Your task to perform on an android device: When is my next appointment? Image 0: 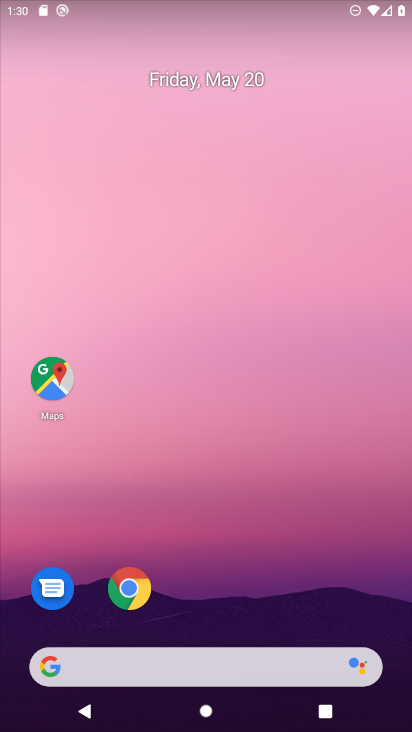
Step 0: drag from (376, 627) to (257, 117)
Your task to perform on an android device: When is my next appointment? Image 1: 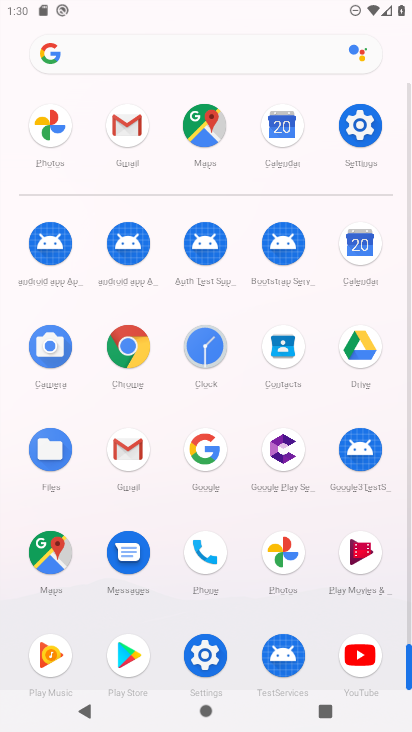
Step 1: click (358, 240)
Your task to perform on an android device: When is my next appointment? Image 2: 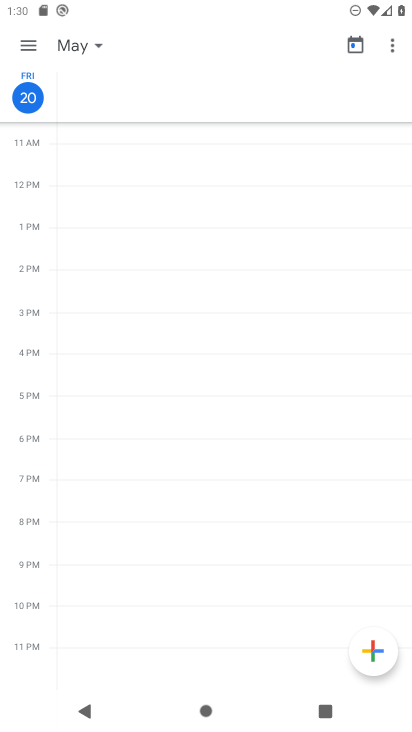
Step 2: drag from (208, 575) to (206, 456)
Your task to perform on an android device: When is my next appointment? Image 3: 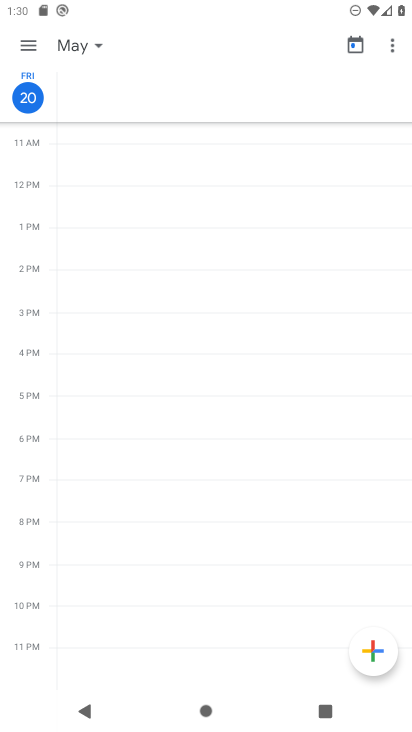
Step 3: click (27, 41)
Your task to perform on an android device: When is my next appointment? Image 4: 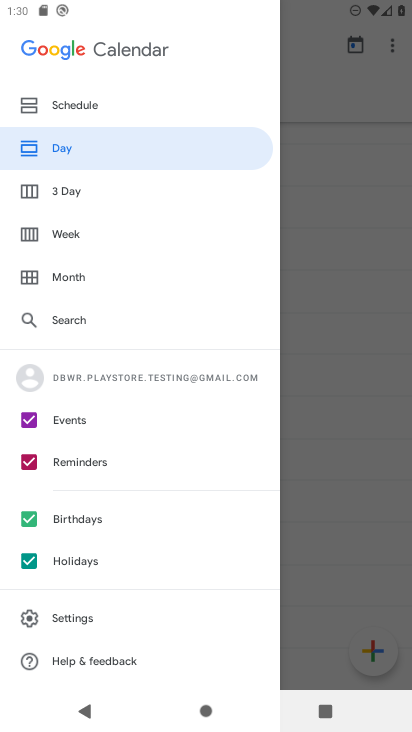
Step 4: click (79, 101)
Your task to perform on an android device: When is my next appointment? Image 5: 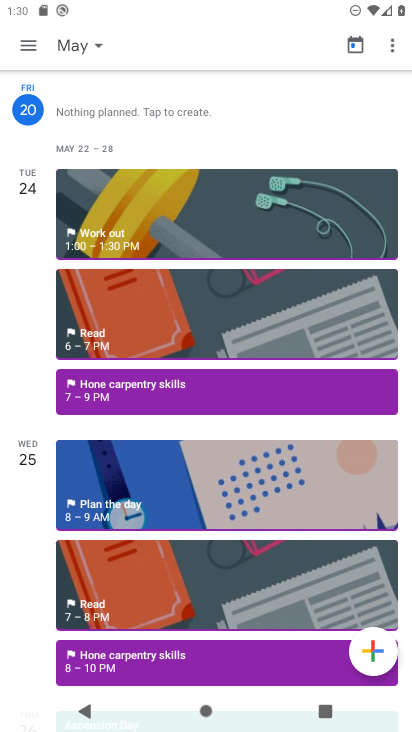
Step 5: task complete